Your task to perform on an android device: set an alarm Image 0: 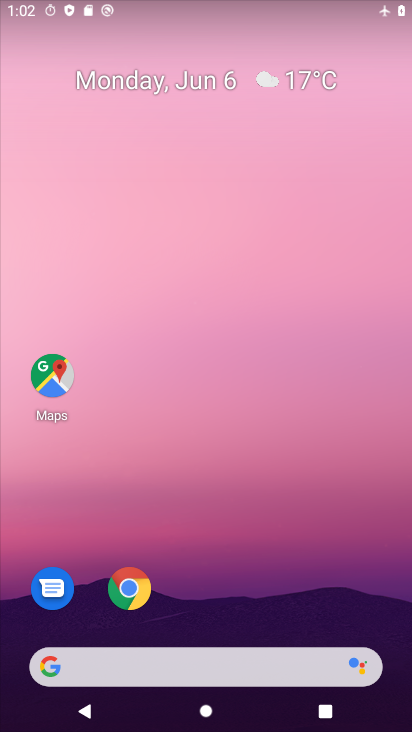
Step 0: drag from (255, 390) to (328, 98)
Your task to perform on an android device: set an alarm Image 1: 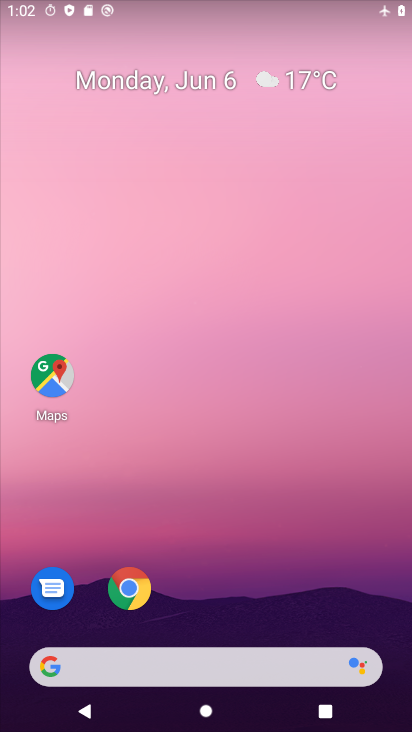
Step 1: drag from (276, 214) to (316, 69)
Your task to perform on an android device: set an alarm Image 2: 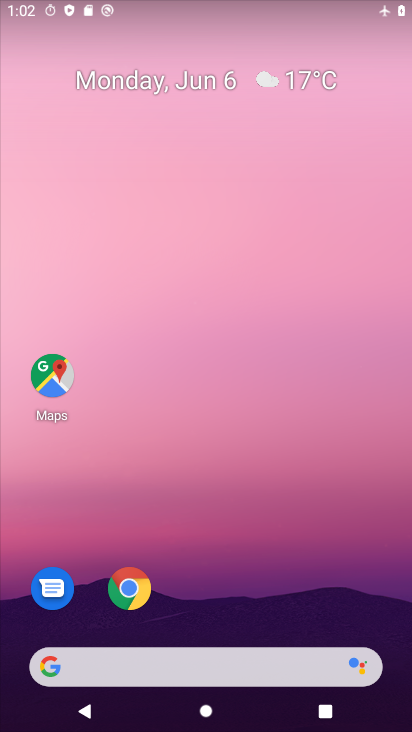
Step 2: drag from (280, 450) to (278, 20)
Your task to perform on an android device: set an alarm Image 3: 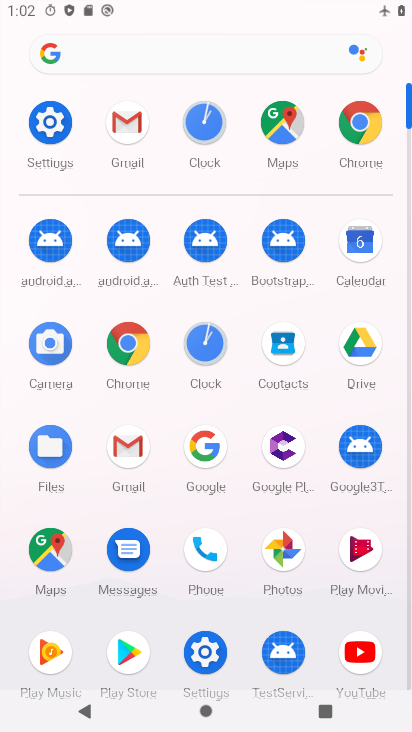
Step 3: click (205, 340)
Your task to perform on an android device: set an alarm Image 4: 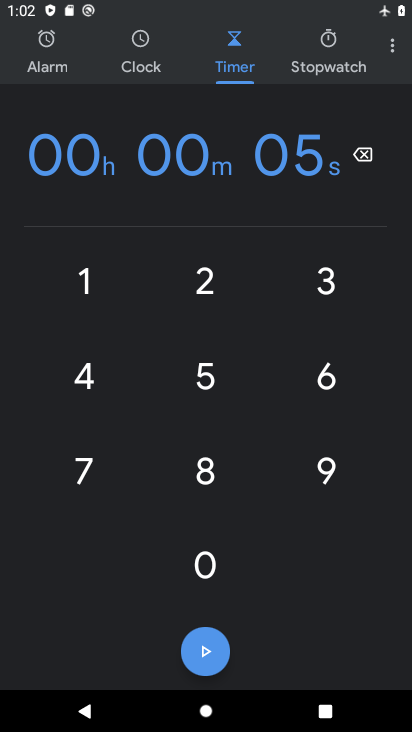
Step 4: click (60, 63)
Your task to perform on an android device: set an alarm Image 5: 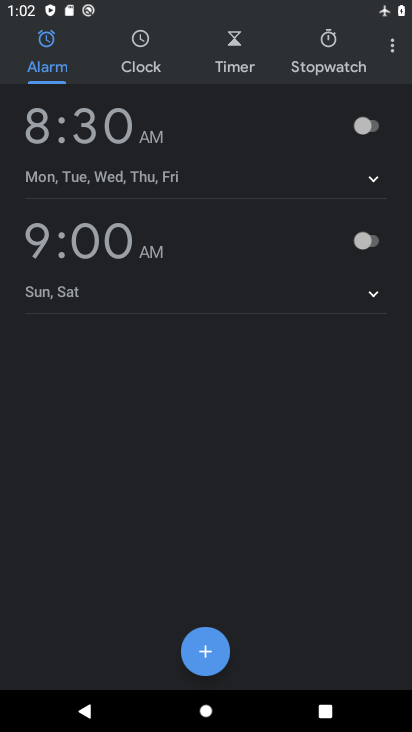
Step 5: click (210, 647)
Your task to perform on an android device: set an alarm Image 6: 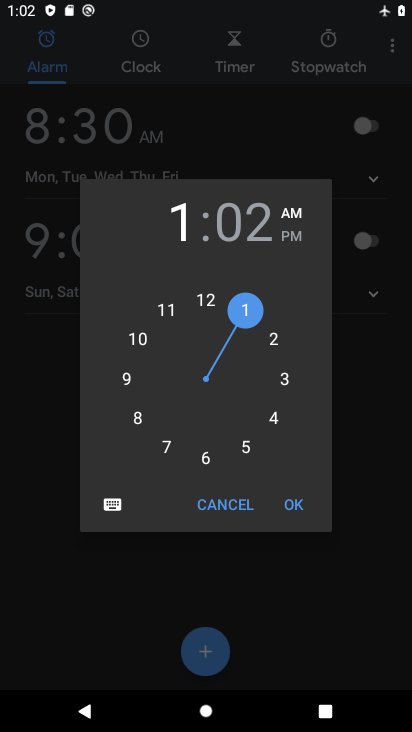
Step 6: click (293, 507)
Your task to perform on an android device: set an alarm Image 7: 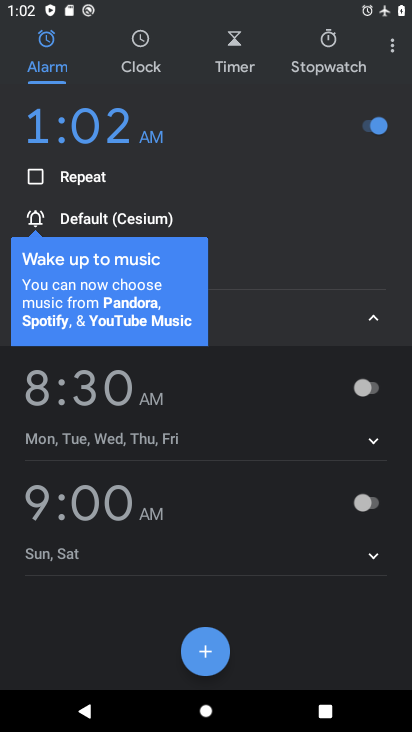
Step 7: task complete